Your task to perform on an android device: manage bookmarks in the chrome app Image 0: 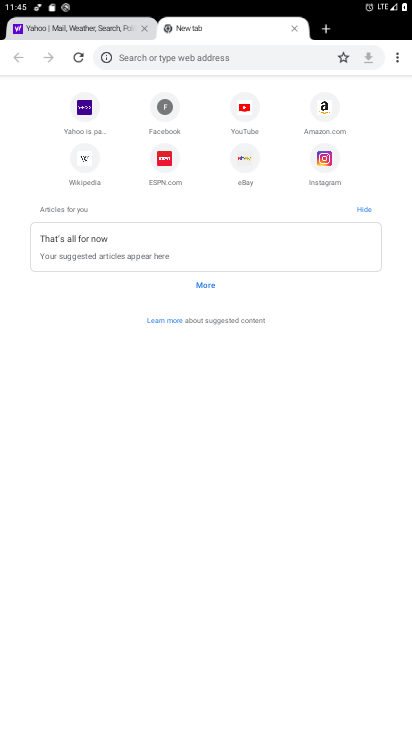
Step 0: press home button
Your task to perform on an android device: manage bookmarks in the chrome app Image 1: 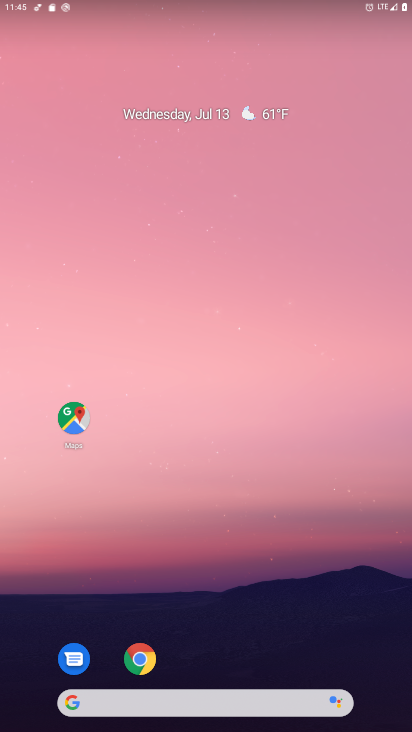
Step 1: click (138, 653)
Your task to perform on an android device: manage bookmarks in the chrome app Image 2: 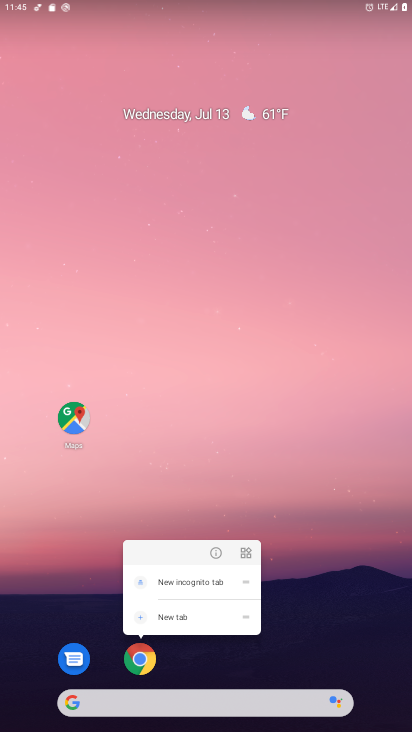
Step 2: click (141, 654)
Your task to perform on an android device: manage bookmarks in the chrome app Image 3: 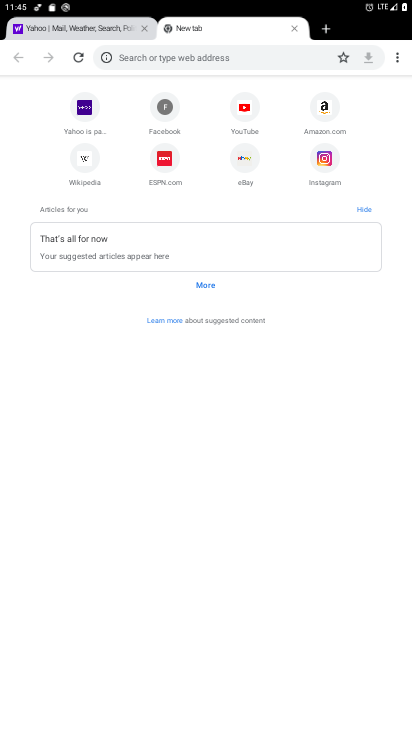
Step 3: click (398, 58)
Your task to perform on an android device: manage bookmarks in the chrome app Image 4: 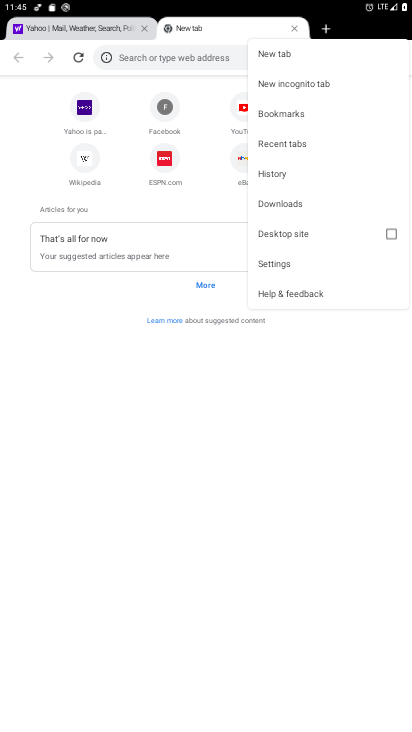
Step 4: click (310, 113)
Your task to perform on an android device: manage bookmarks in the chrome app Image 5: 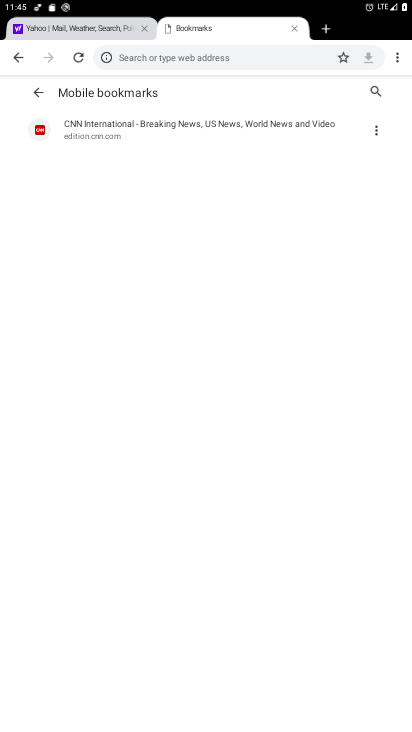
Step 5: task complete